Your task to perform on an android device: check data usage Image 0: 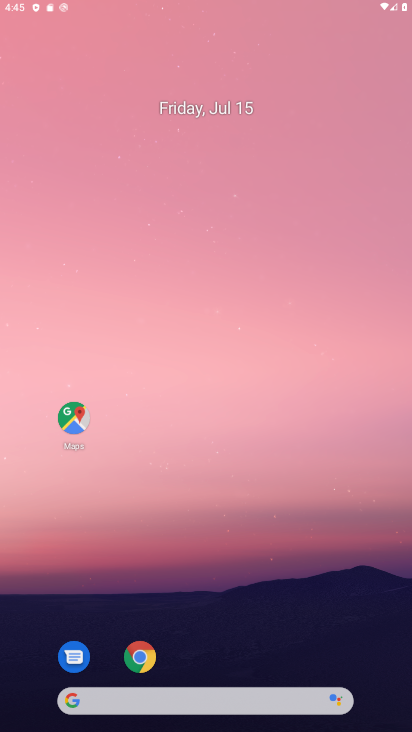
Step 0: drag from (178, 60) to (275, 167)
Your task to perform on an android device: check data usage Image 1: 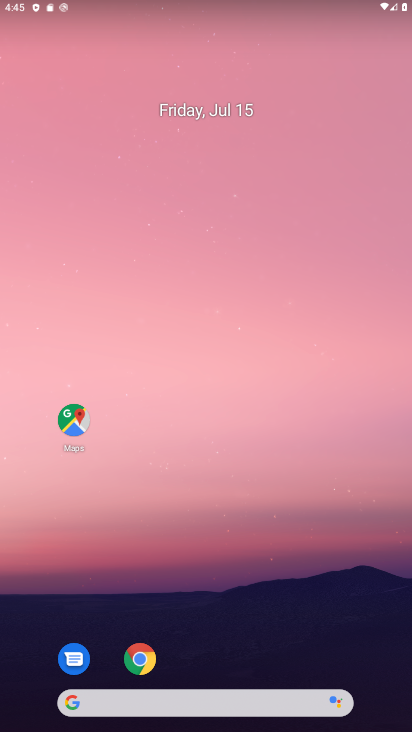
Step 1: drag from (336, 667) to (213, 60)
Your task to perform on an android device: check data usage Image 2: 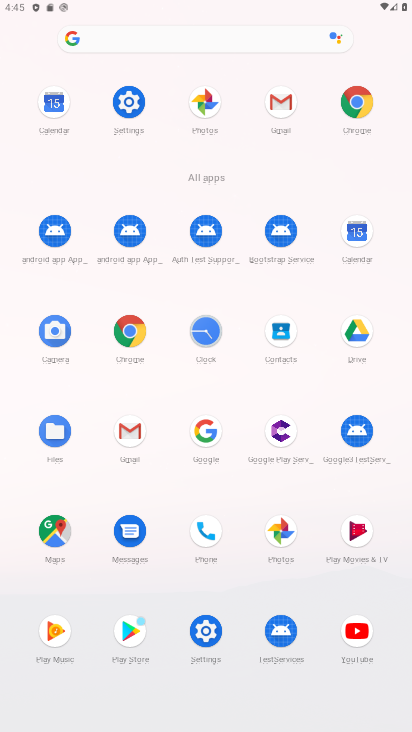
Step 2: click (123, 118)
Your task to perform on an android device: check data usage Image 3: 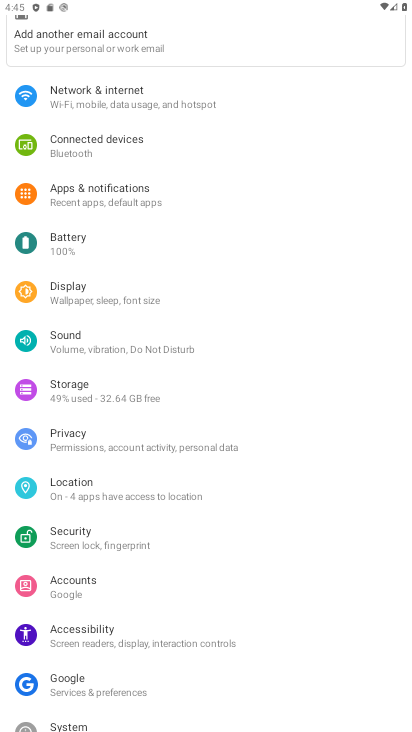
Step 3: click (130, 110)
Your task to perform on an android device: check data usage Image 4: 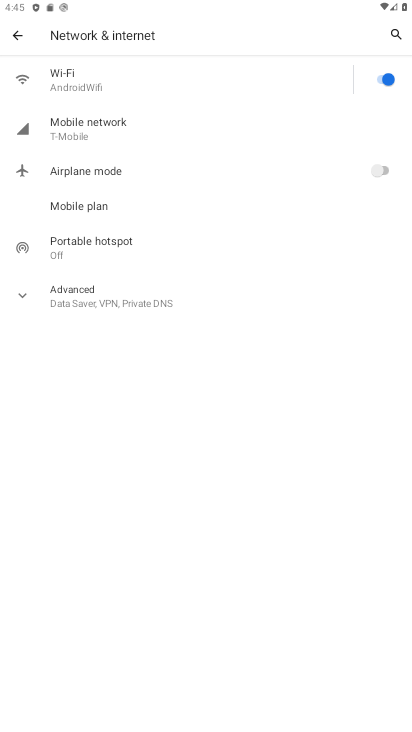
Step 4: click (169, 76)
Your task to perform on an android device: check data usage Image 5: 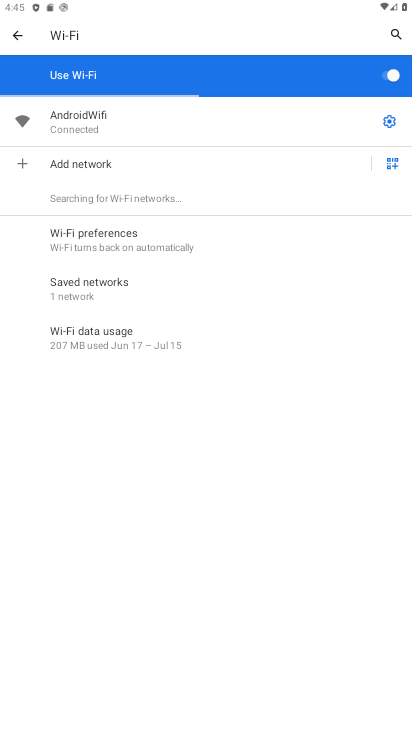
Step 5: click (130, 338)
Your task to perform on an android device: check data usage Image 6: 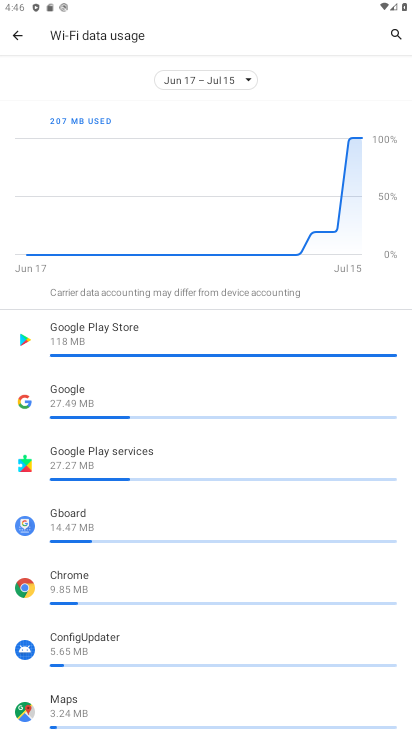
Step 6: task complete